Your task to perform on an android device: turn on javascript in the chrome app Image 0: 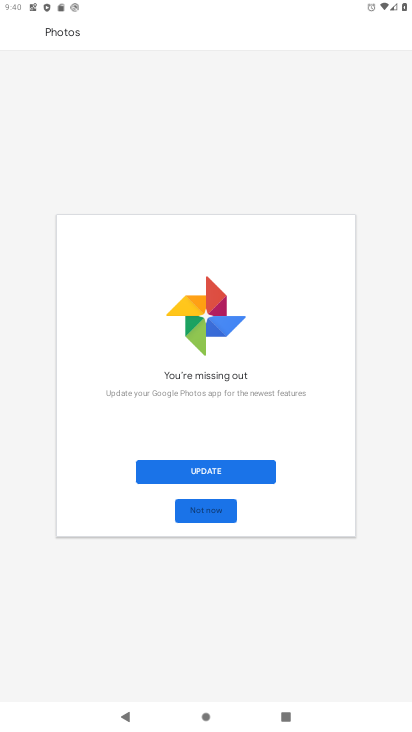
Step 0: press home button
Your task to perform on an android device: turn on javascript in the chrome app Image 1: 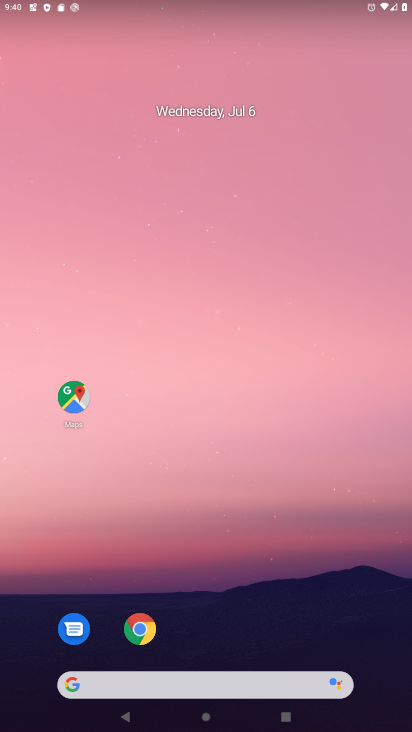
Step 1: click (132, 626)
Your task to perform on an android device: turn on javascript in the chrome app Image 2: 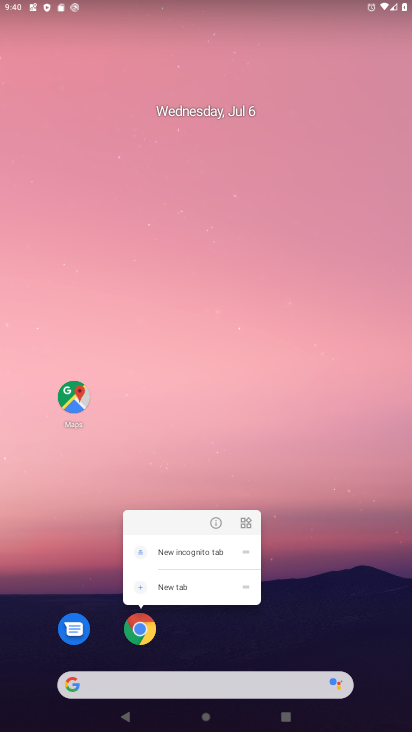
Step 2: click (152, 631)
Your task to perform on an android device: turn on javascript in the chrome app Image 3: 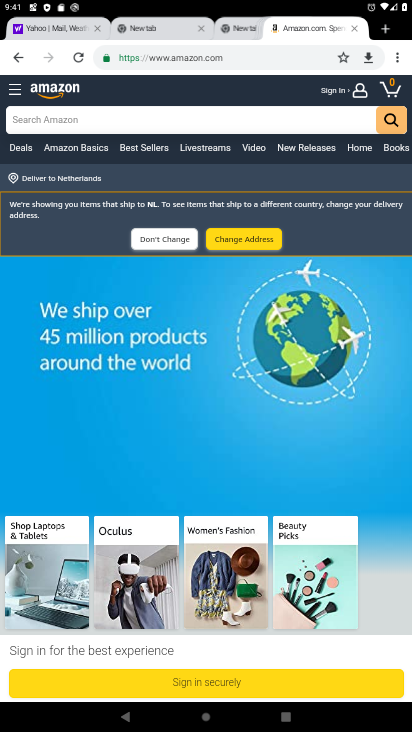
Step 3: click (396, 54)
Your task to perform on an android device: turn on javascript in the chrome app Image 4: 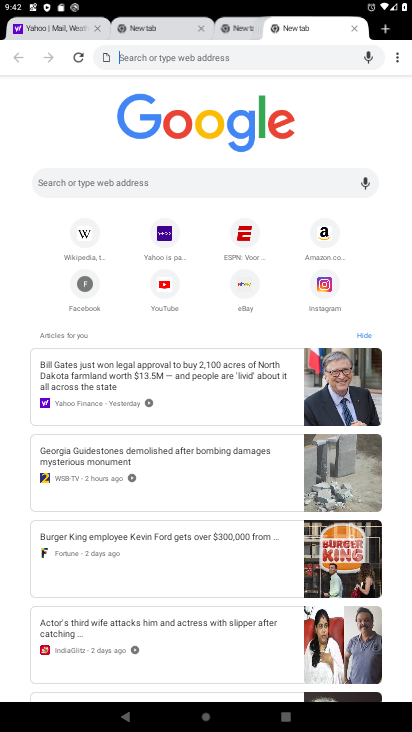
Step 4: click (402, 54)
Your task to perform on an android device: turn on javascript in the chrome app Image 5: 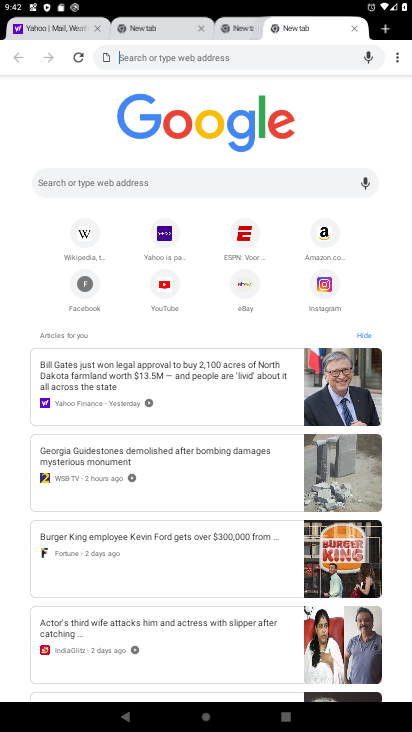
Step 5: click (393, 55)
Your task to perform on an android device: turn on javascript in the chrome app Image 6: 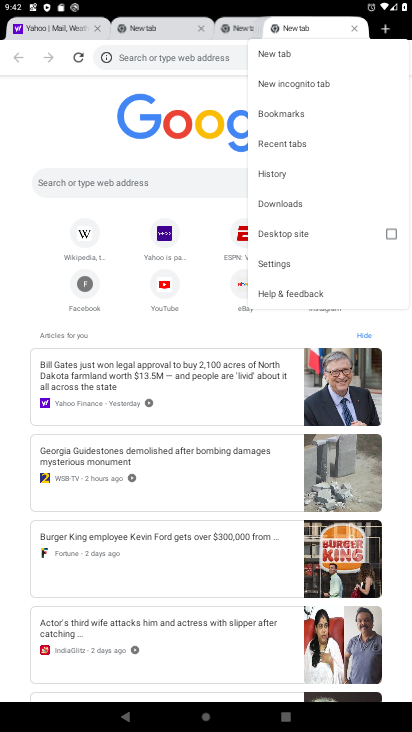
Step 6: click (298, 262)
Your task to perform on an android device: turn on javascript in the chrome app Image 7: 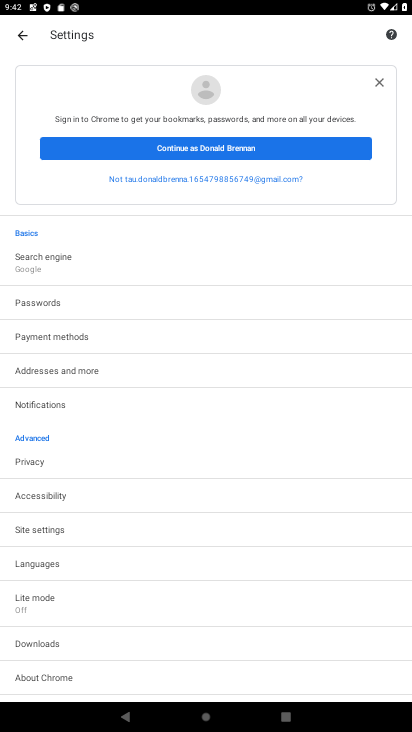
Step 7: click (87, 527)
Your task to perform on an android device: turn on javascript in the chrome app Image 8: 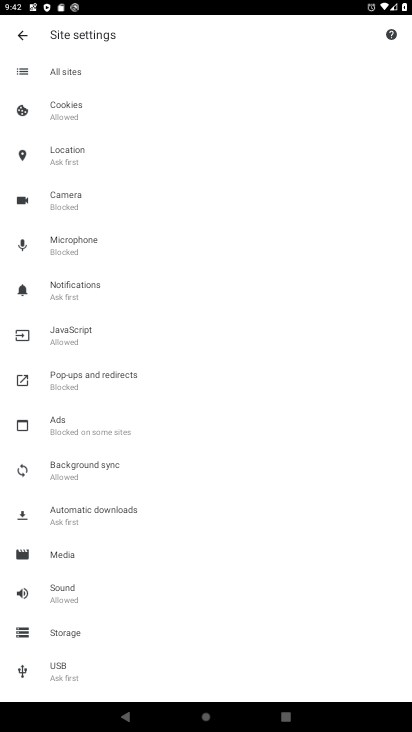
Step 8: click (105, 346)
Your task to perform on an android device: turn on javascript in the chrome app Image 9: 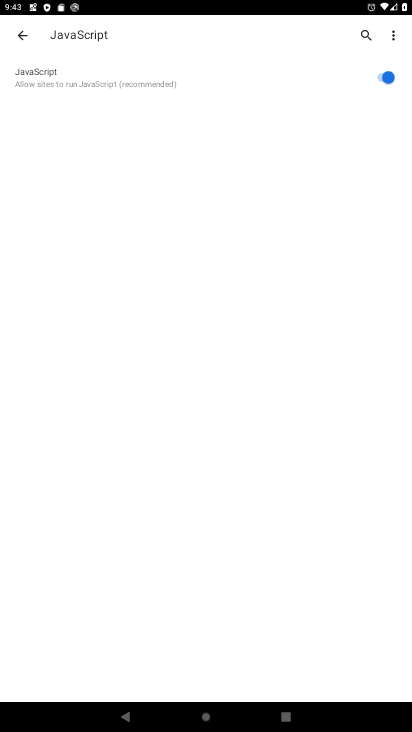
Step 9: task complete